Your task to perform on an android device: Open Maps and search for coffee Image 0: 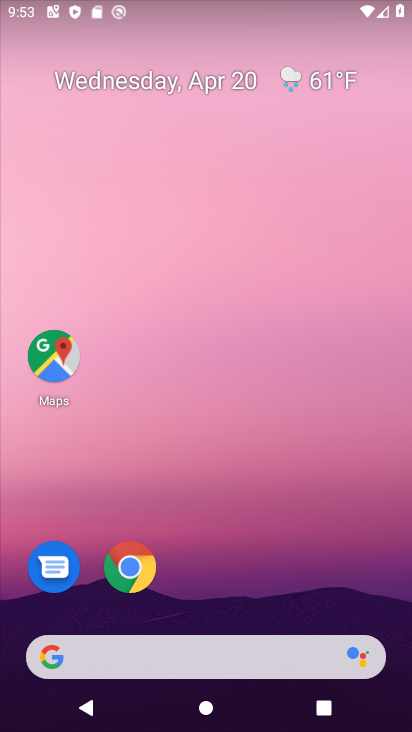
Step 0: click (66, 365)
Your task to perform on an android device: Open Maps and search for coffee Image 1: 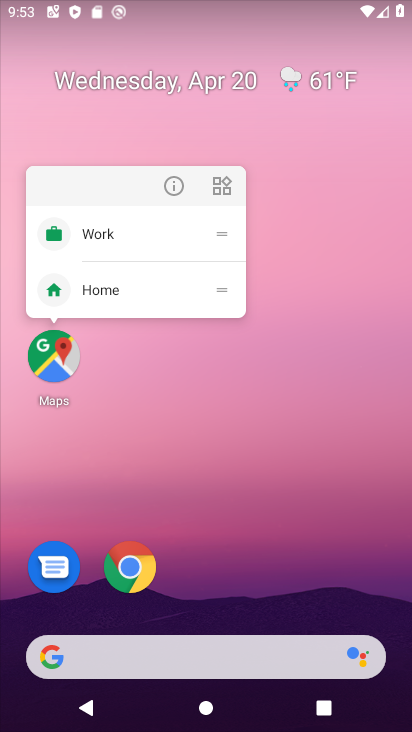
Step 1: click (41, 358)
Your task to perform on an android device: Open Maps and search for coffee Image 2: 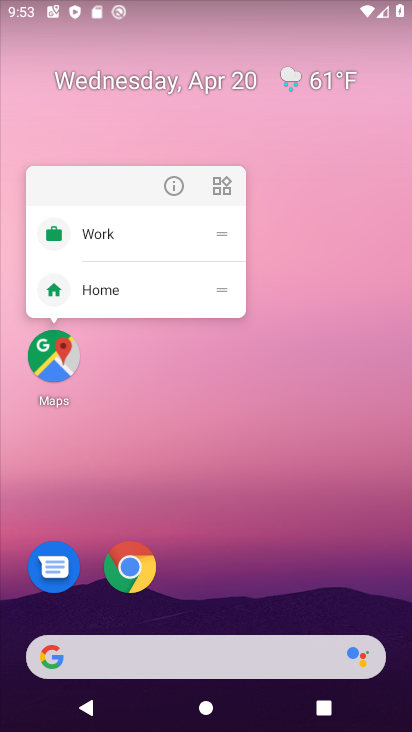
Step 2: click (41, 358)
Your task to perform on an android device: Open Maps and search for coffee Image 3: 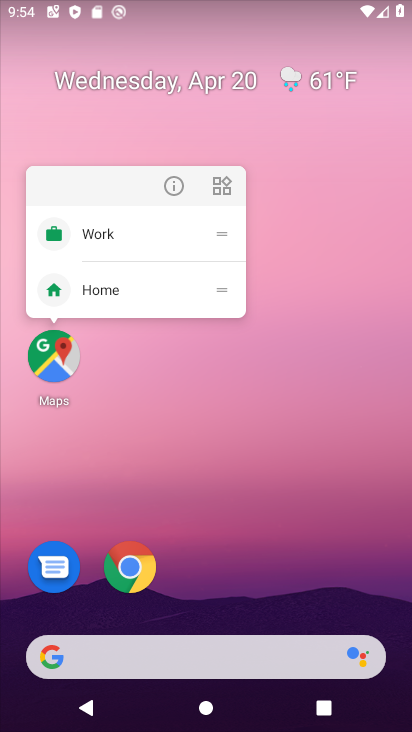
Step 3: click (53, 363)
Your task to perform on an android device: Open Maps and search for coffee Image 4: 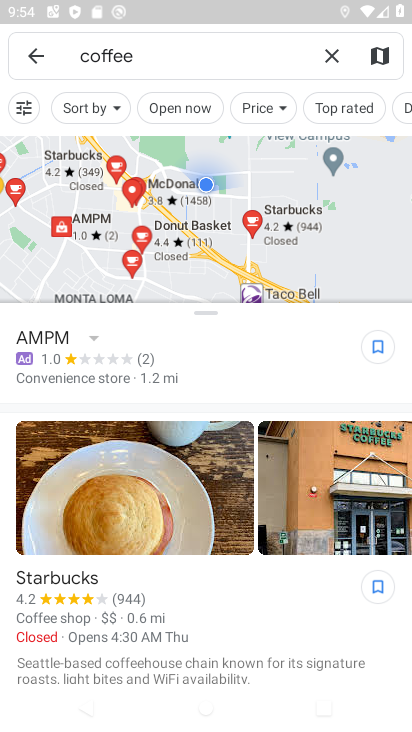
Step 4: task complete